Your task to perform on an android device: Open ESPN.com Image 0: 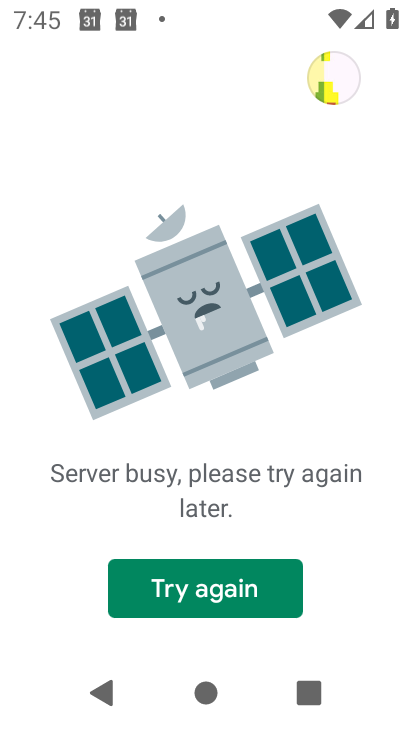
Step 0: press home button
Your task to perform on an android device: Open ESPN.com Image 1: 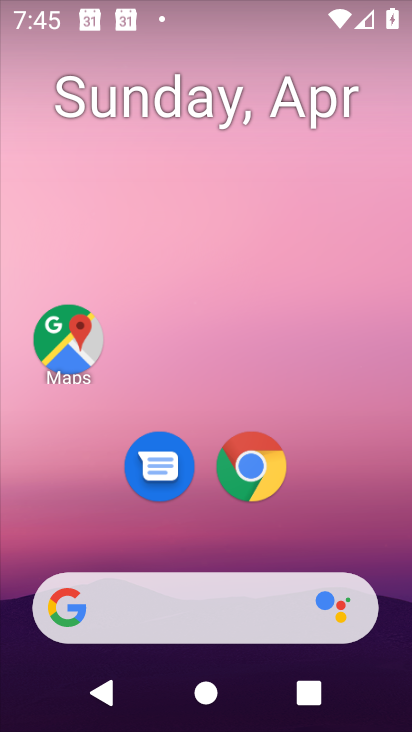
Step 1: click (246, 473)
Your task to perform on an android device: Open ESPN.com Image 2: 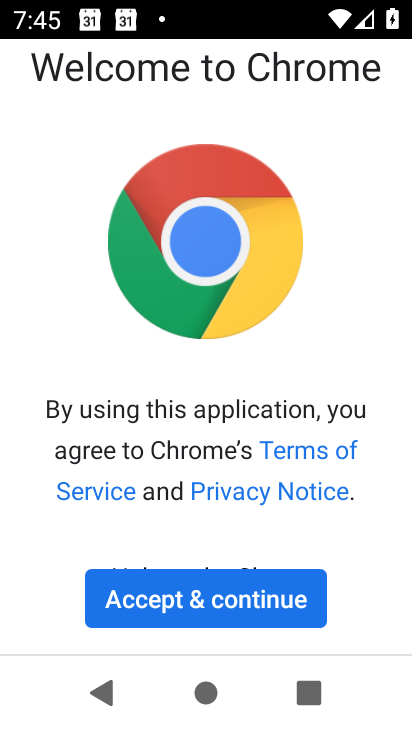
Step 2: click (220, 600)
Your task to perform on an android device: Open ESPN.com Image 3: 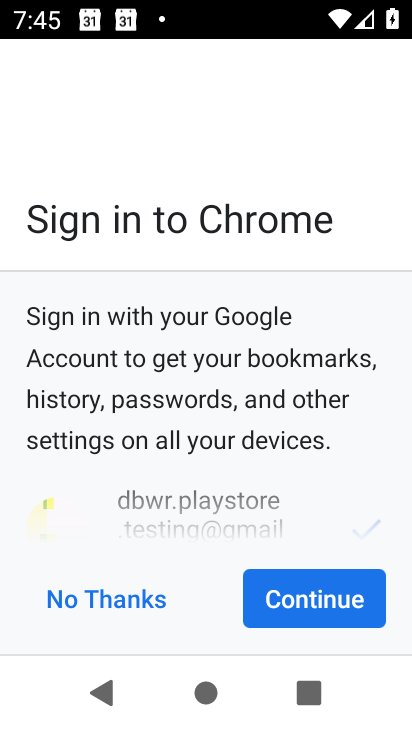
Step 3: click (300, 586)
Your task to perform on an android device: Open ESPN.com Image 4: 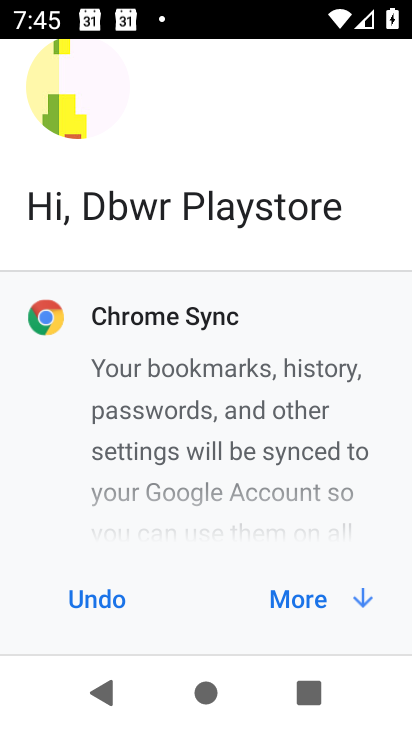
Step 4: click (296, 591)
Your task to perform on an android device: Open ESPN.com Image 5: 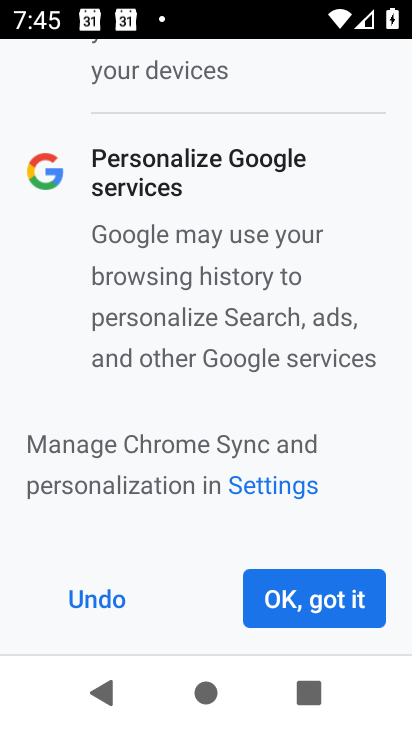
Step 5: click (294, 593)
Your task to perform on an android device: Open ESPN.com Image 6: 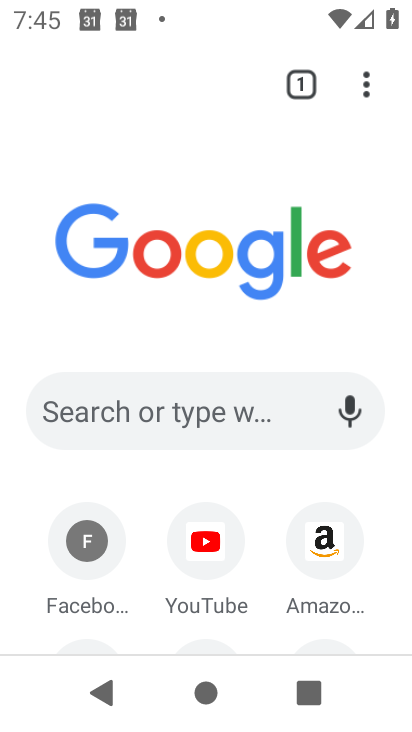
Step 6: click (207, 439)
Your task to perform on an android device: Open ESPN.com Image 7: 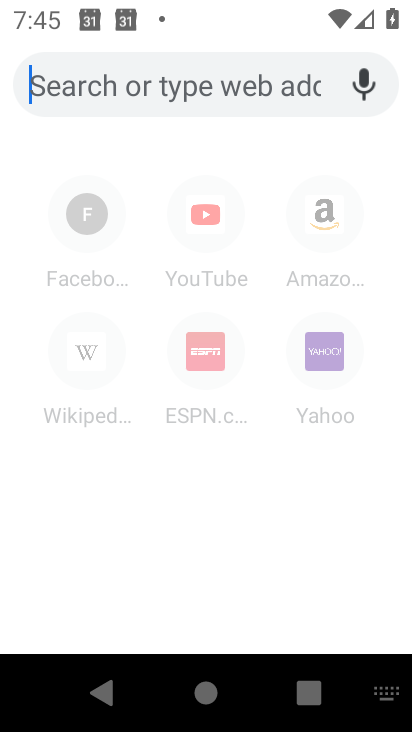
Step 7: type "ESPN.com"
Your task to perform on an android device: Open ESPN.com Image 8: 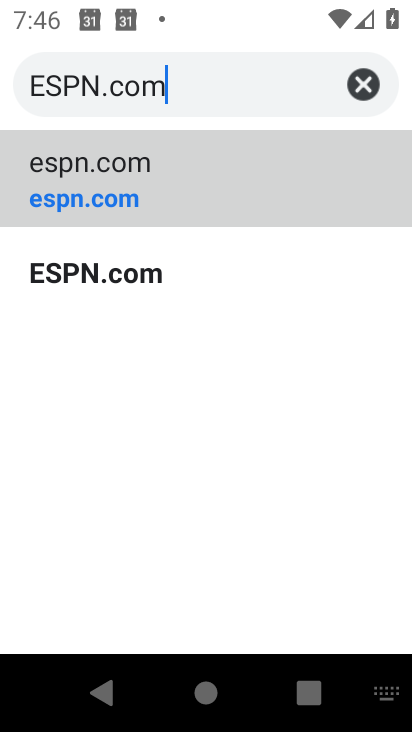
Step 8: click (124, 183)
Your task to perform on an android device: Open ESPN.com Image 9: 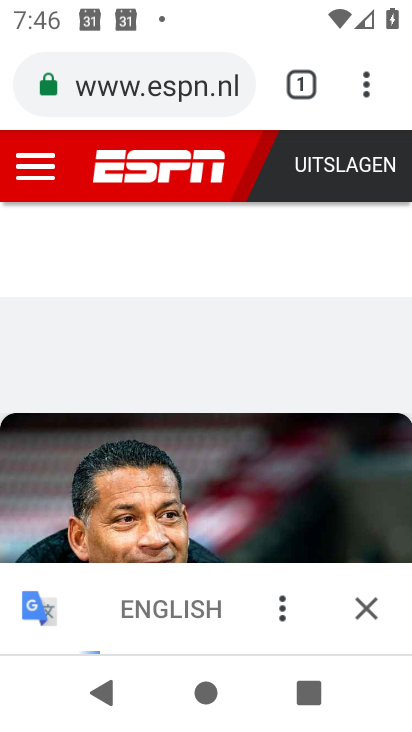
Step 9: click (355, 604)
Your task to perform on an android device: Open ESPN.com Image 10: 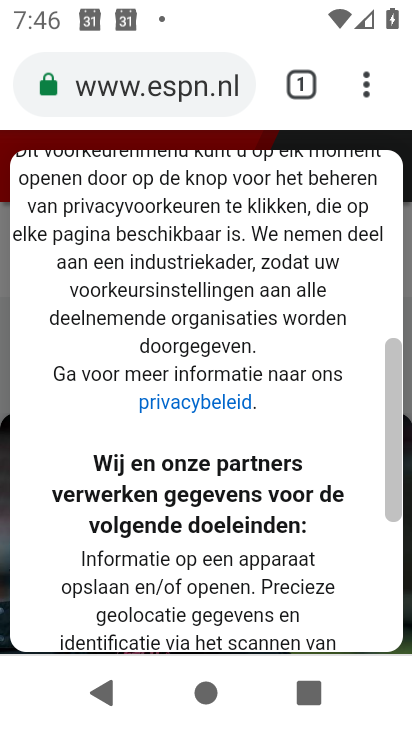
Step 10: task complete